Your task to perform on an android device: change the clock style Image 0: 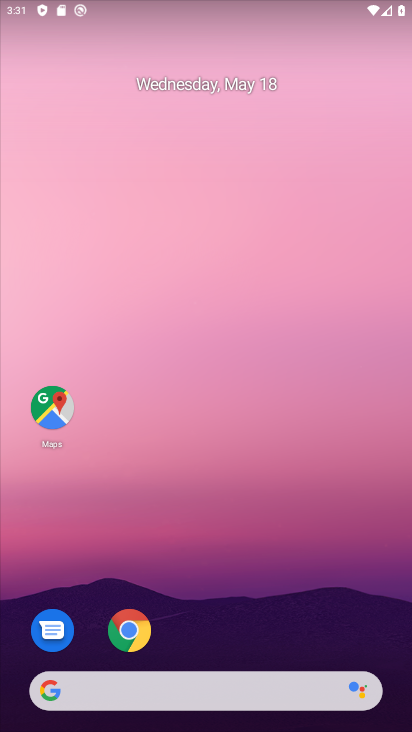
Step 0: drag from (218, 712) to (239, 166)
Your task to perform on an android device: change the clock style Image 1: 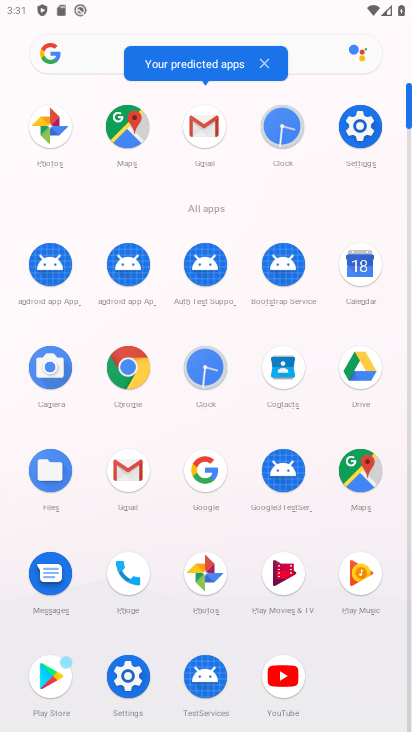
Step 1: click (217, 370)
Your task to perform on an android device: change the clock style Image 2: 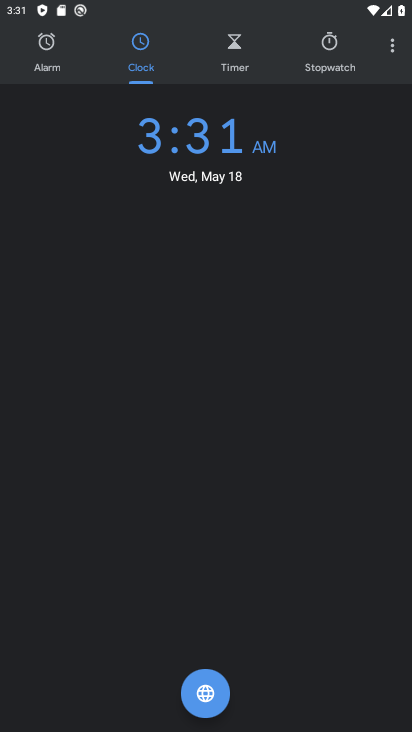
Step 2: click (394, 45)
Your task to perform on an android device: change the clock style Image 3: 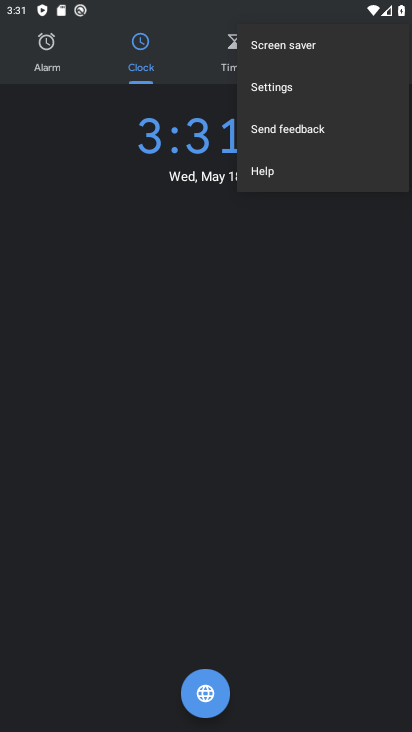
Step 3: click (270, 82)
Your task to perform on an android device: change the clock style Image 4: 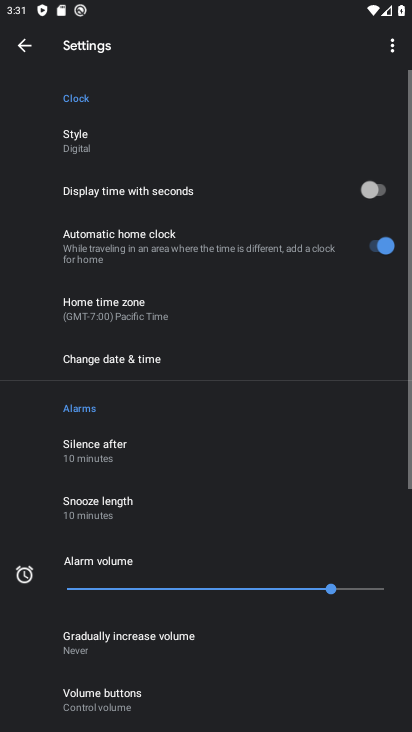
Step 4: click (85, 141)
Your task to perform on an android device: change the clock style Image 5: 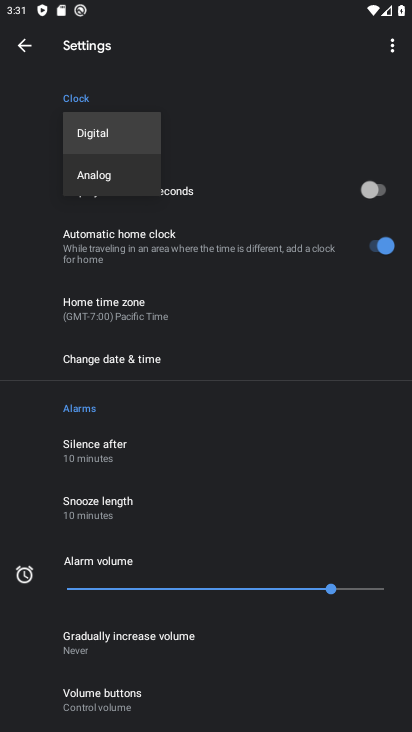
Step 5: click (114, 168)
Your task to perform on an android device: change the clock style Image 6: 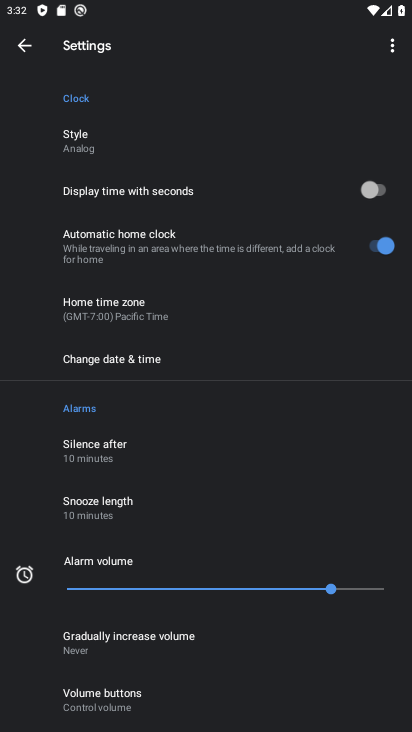
Step 6: task complete